Your task to perform on an android device: turn on wifi Image 0: 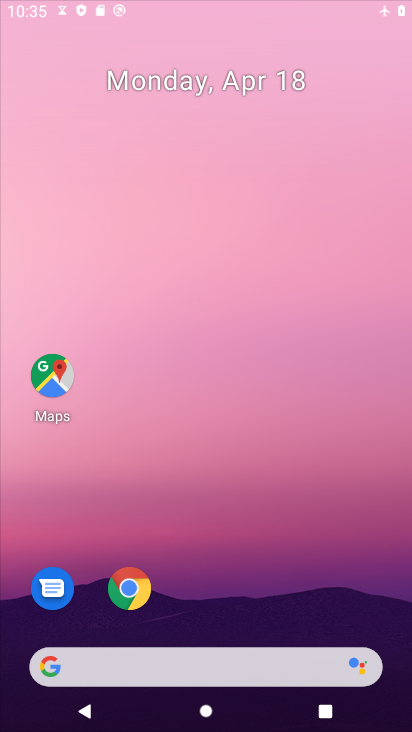
Step 0: drag from (277, 473) to (110, 0)
Your task to perform on an android device: turn on wifi Image 1: 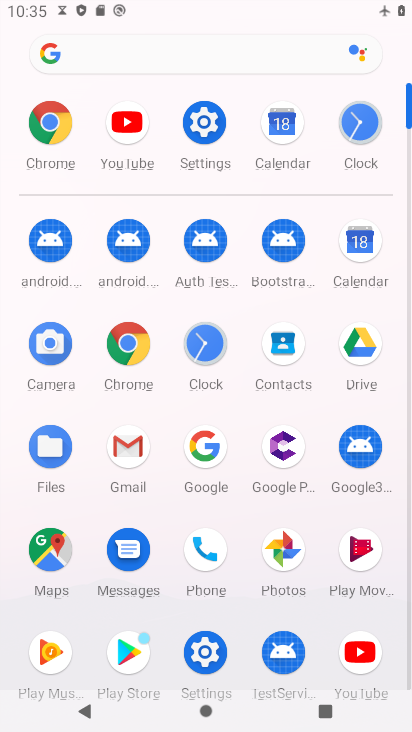
Step 1: click (205, 120)
Your task to perform on an android device: turn on wifi Image 2: 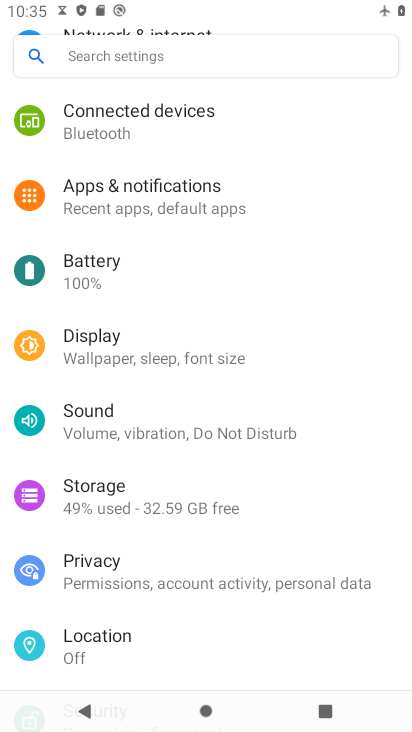
Step 2: drag from (169, 175) to (261, 564)
Your task to perform on an android device: turn on wifi Image 3: 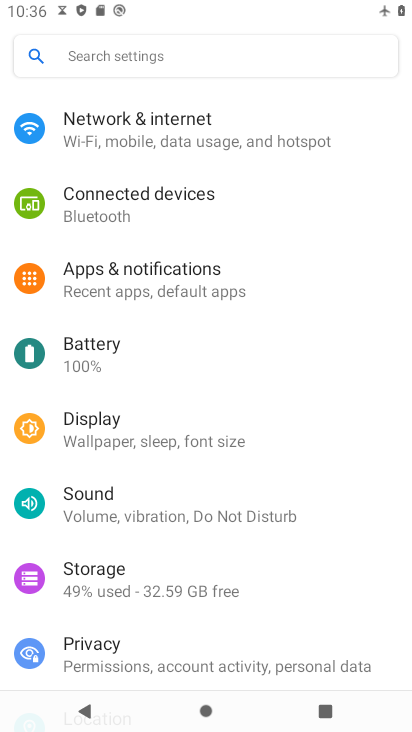
Step 3: click (160, 130)
Your task to perform on an android device: turn on wifi Image 4: 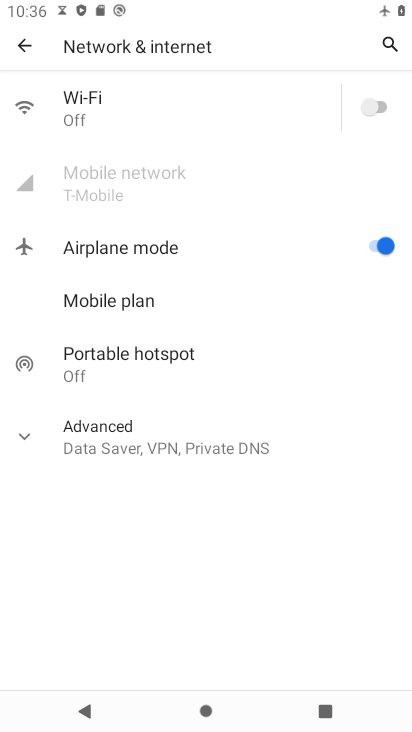
Step 4: click (376, 98)
Your task to perform on an android device: turn on wifi Image 5: 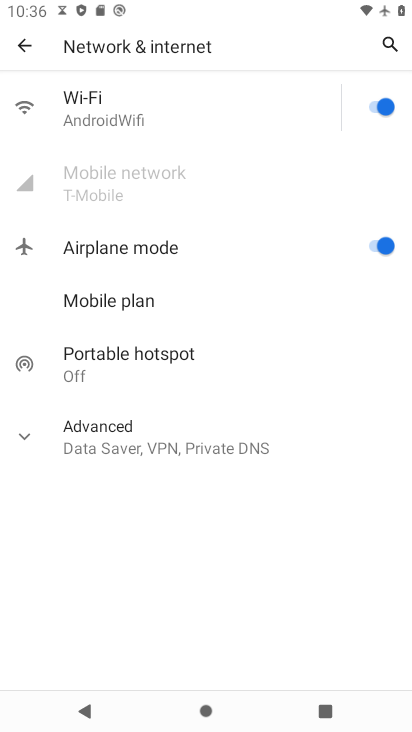
Step 5: task complete